Your task to perform on an android device: Do I have any events this weekend? Image 0: 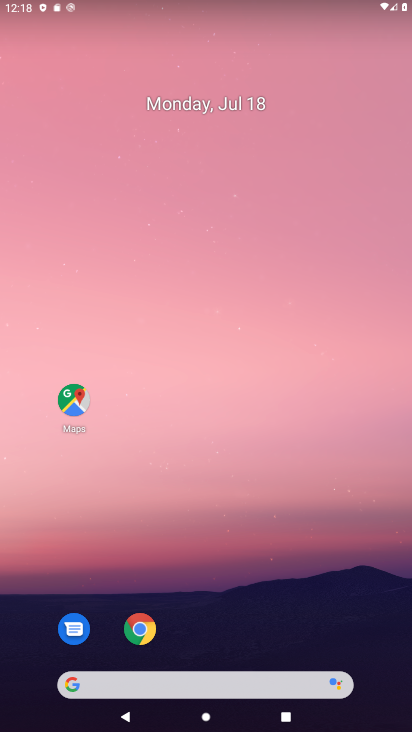
Step 0: press home button
Your task to perform on an android device: Do I have any events this weekend? Image 1: 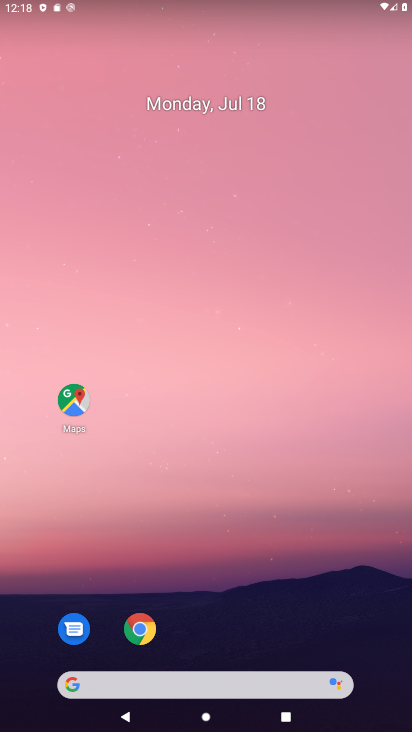
Step 1: drag from (269, 644) to (155, 53)
Your task to perform on an android device: Do I have any events this weekend? Image 2: 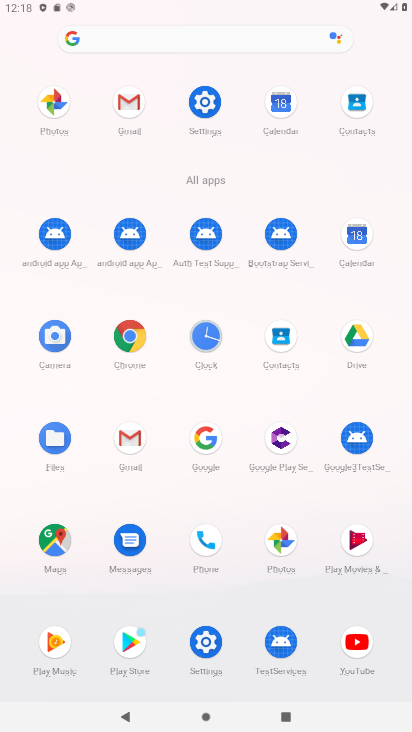
Step 2: click (348, 236)
Your task to perform on an android device: Do I have any events this weekend? Image 3: 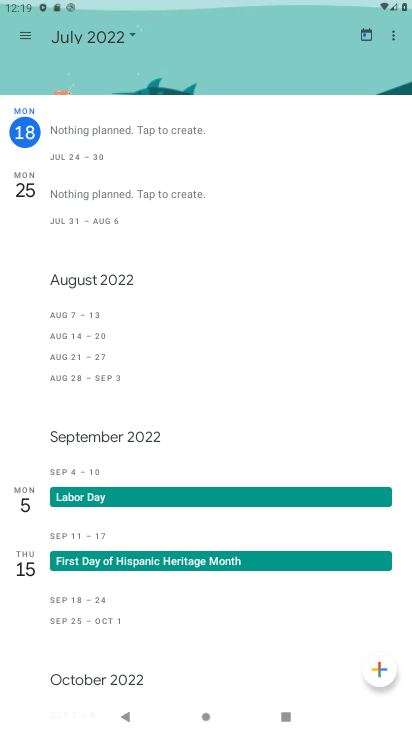
Step 3: click (106, 47)
Your task to perform on an android device: Do I have any events this weekend? Image 4: 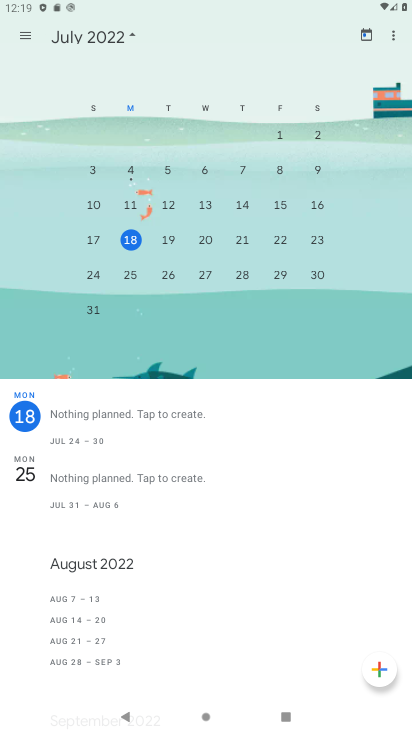
Step 4: click (114, 279)
Your task to perform on an android device: Do I have any events this weekend? Image 5: 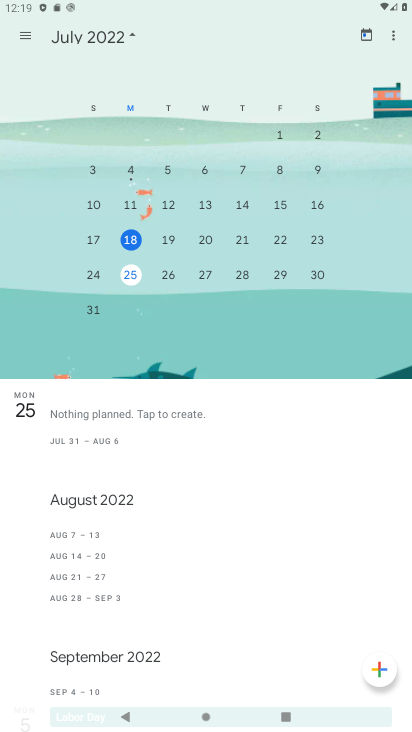
Step 5: task complete